Your task to perform on an android device: show emergency info Image 0: 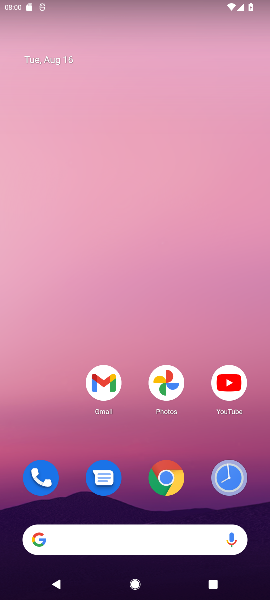
Step 0: drag from (132, 500) to (124, 21)
Your task to perform on an android device: show emergency info Image 1: 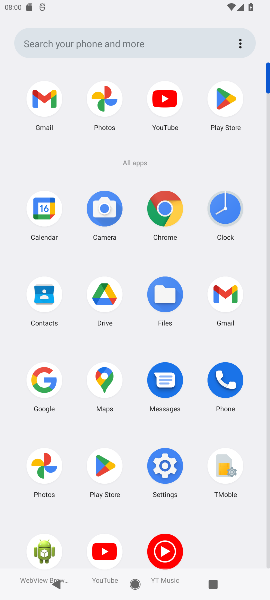
Step 1: click (162, 459)
Your task to perform on an android device: show emergency info Image 2: 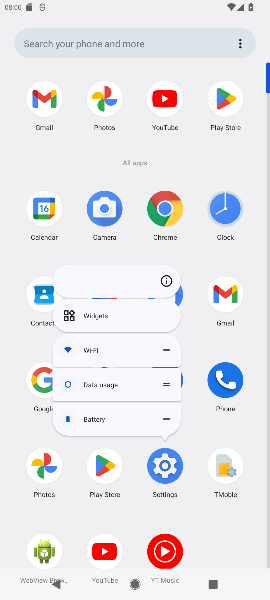
Step 2: click (162, 459)
Your task to perform on an android device: show emergency info Image 3: 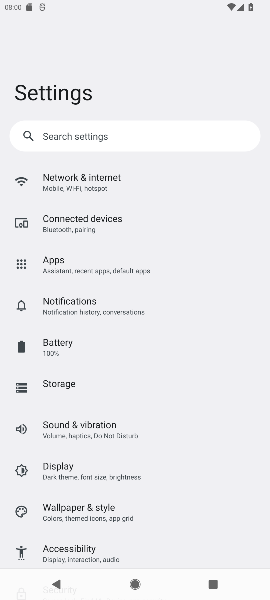
Step 3: drag from (131, 530) to (126, 135)
Your task to perform on an android device: show emergency info Image 4: 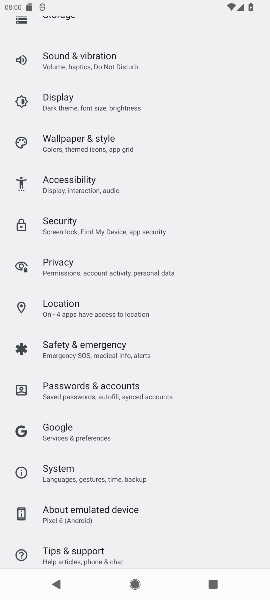
Step 4: click (99, 516)
Your task to perform on an android device: show emergency info Image 5: 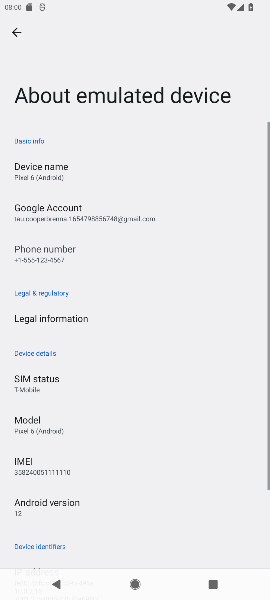
Step 5: click (19, 31)
Your task to perform on an android device: show emergency info Image 6: 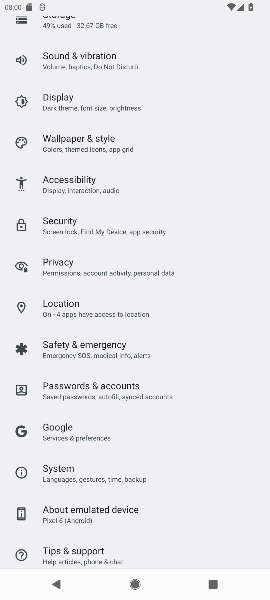
Step 6: click (103, 345)
Your task to perform on an android device: show emergency info Image 7: 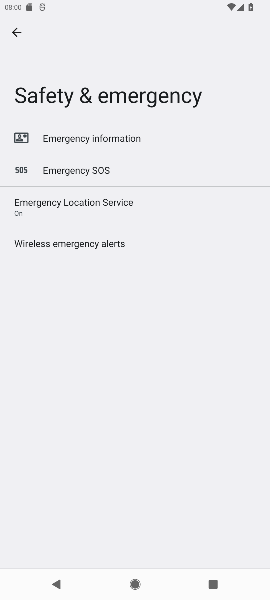
Step 7: click (115, 133)
Your task to perform on an android device: show emergency info Image 8: 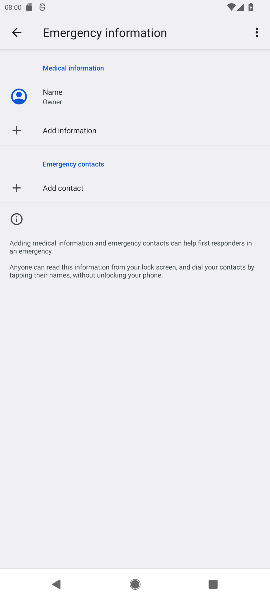
Step 8: task complete